Your task to perform on an android device: Open ESPN.com Image 0: 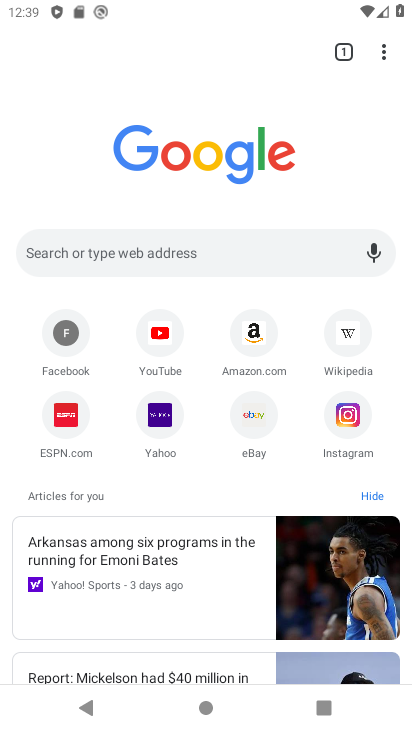
Step 0: drag from (279, 691) to (303, 539)
Your task to perform on an android device: Open ESPN.com Image 1: 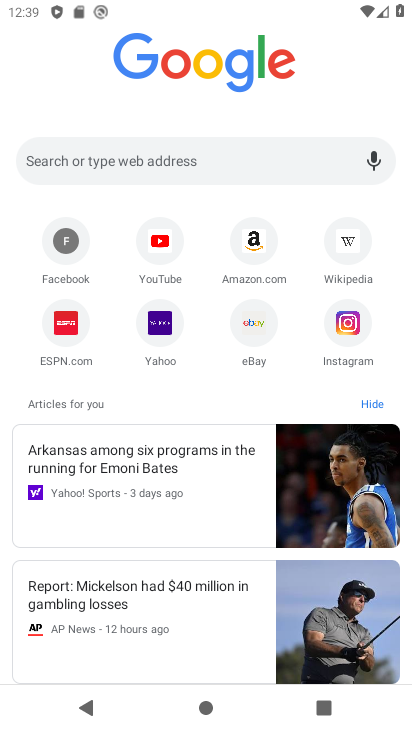
Step 1: press home button
Your task to perform on an android device: Open ESPN.com Image 2: 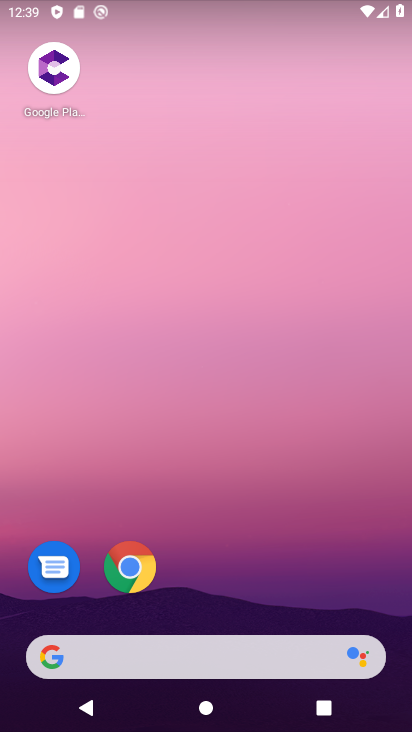
Step 2: drag from (263, 670) to (224, 269)
Your task to perform on an android device: Open ESPN.com Image 3: 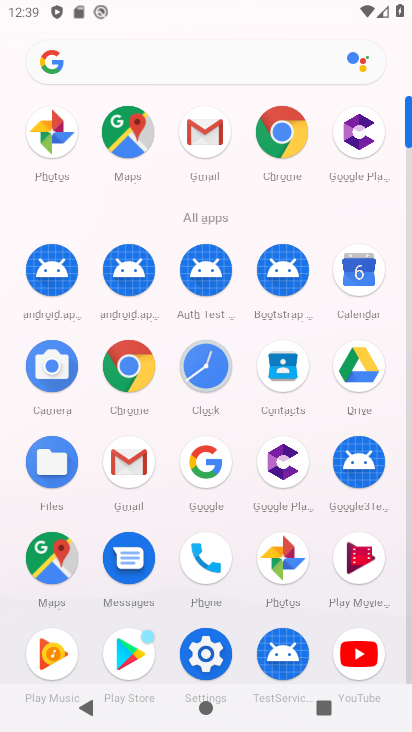
Step 3: click (294, 142)
Your task to perform on an android device: Open ESPN.com Image 4: 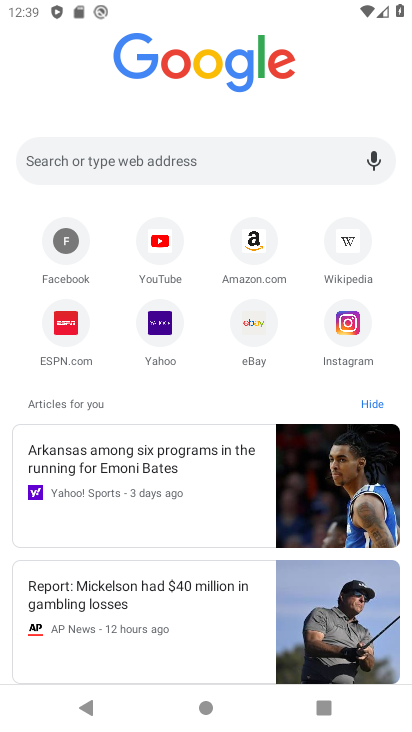
Step 4: click (51, 327)
Your task to perform on an android device: Open ESPN.com Image 5: 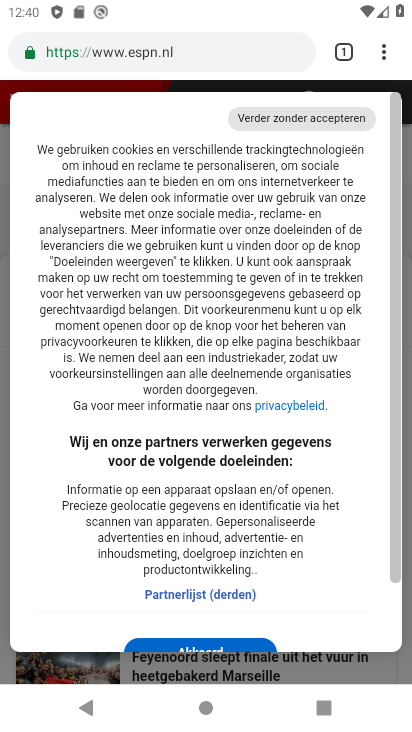
Step 5: task complete